Your task to perform on an android device: change notifications settings Image 0: 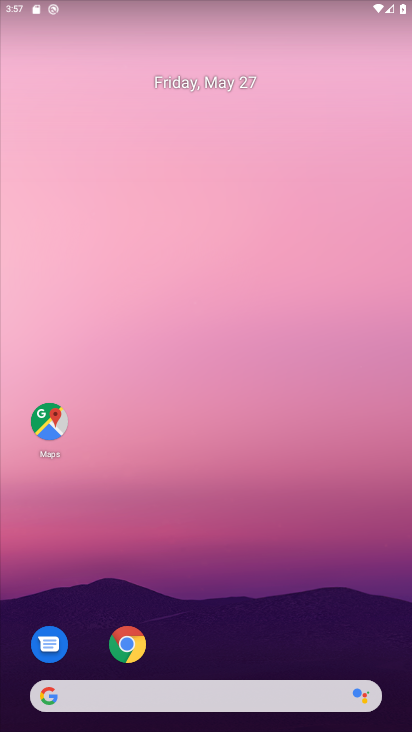
Step 0: drag from (318, 547) to (181, 62)
Your task to perform on an android device: change notifications settings Image 1: 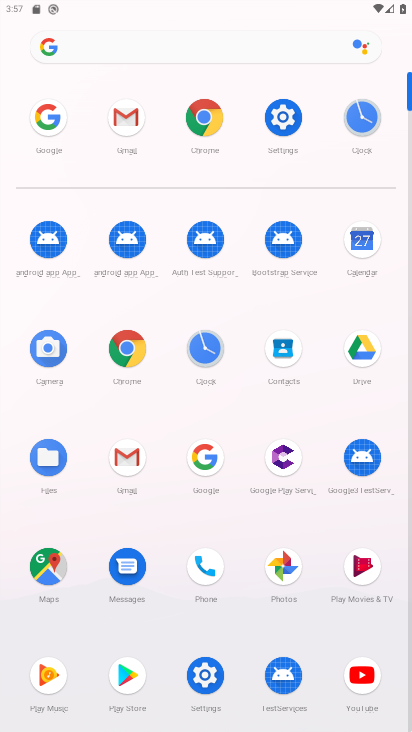
Step 1: click (291, 124)
Your task to perform on an android device: change notifications settings Image 2: 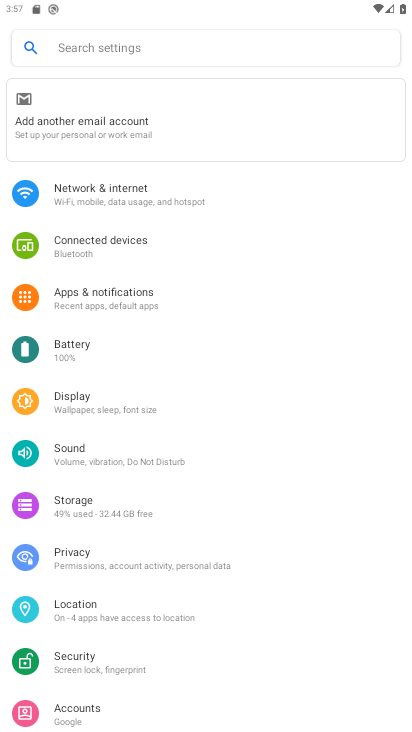
Step 2: click (136, 315)
Your task to perform on an android device: change notifications settings Image 3: 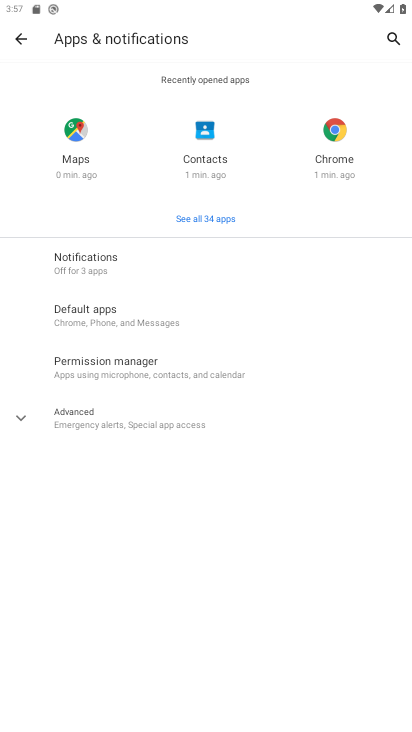
Step 3: click (136, 266)
Your task to perform on an android device: change notifications settings Image 4: 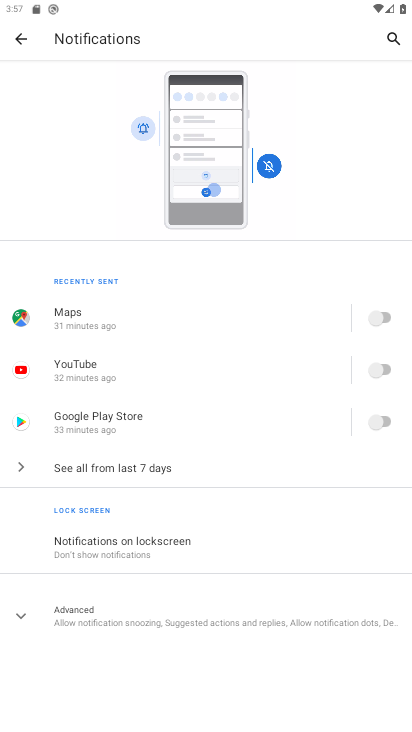
Step 4: click (370, 311)
Your task to perform on an android device: change notifications settings Image 5: 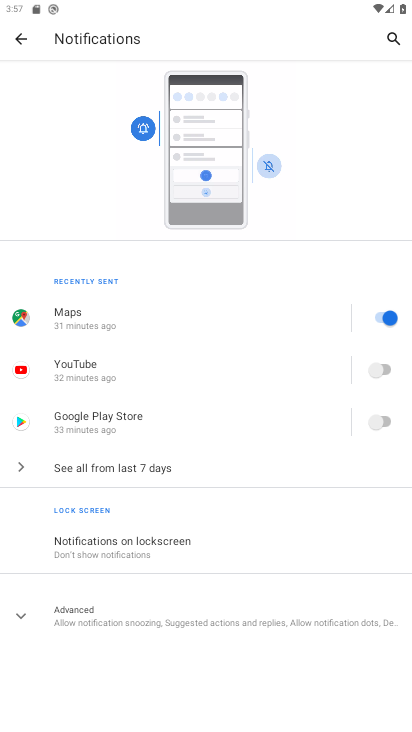
Step 5: click (386, 371)
Your task to perform on an android device: change notifications settings Image 6: 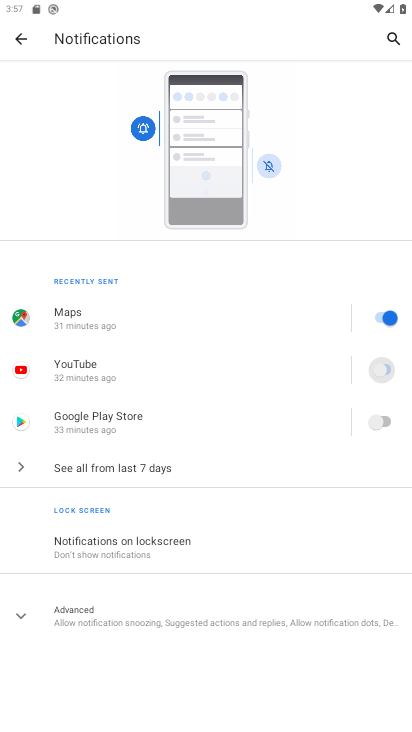
Step 6: click (385, 429)
Your task to perform on an android device: change notifications settings Image 7: 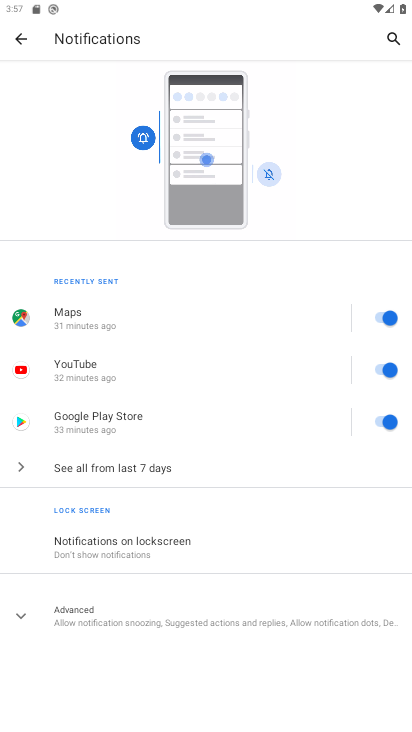
Step 7: task complete